Your task to perform on an android device: Show me popular videos on Youtube Image 0: 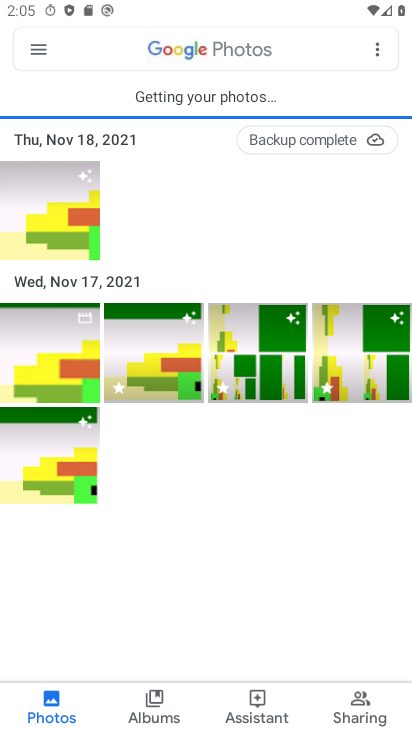
Step 0: press home button
Your task to perform on an android device: Show me popular videos on Youtube Image 1: 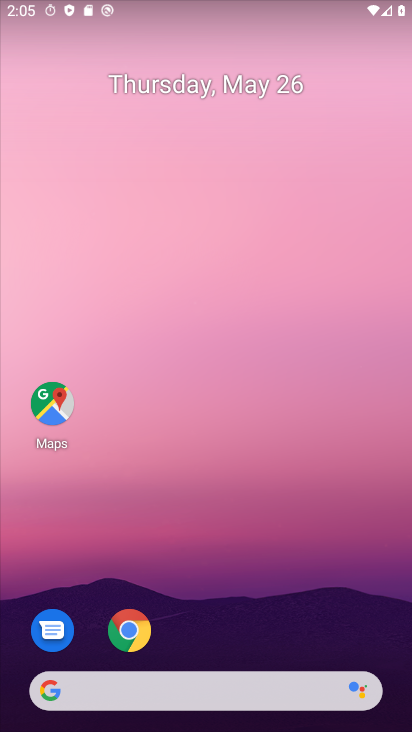
Step 1: drag from (290, 377) to (321, 94)
Your task to perform on an android device: Show me popular videos on Youtube Image 2: 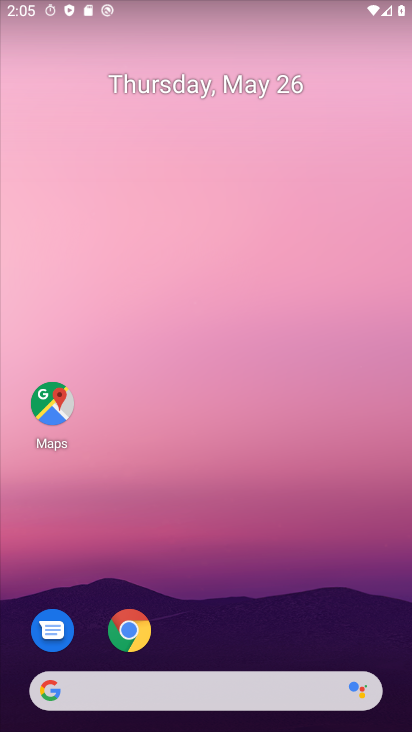
Step 2: drag from (194, 623) to (184, 43)
Your task to perform on an android device: Show me popular videos on Youtube Image 3: 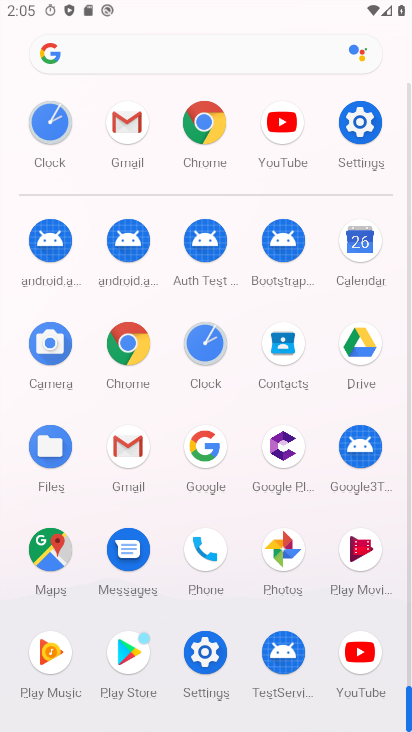
Step 3: click (262, 121)
Your task to perform on an android device: Show me popular videos on Youtube Image 4: 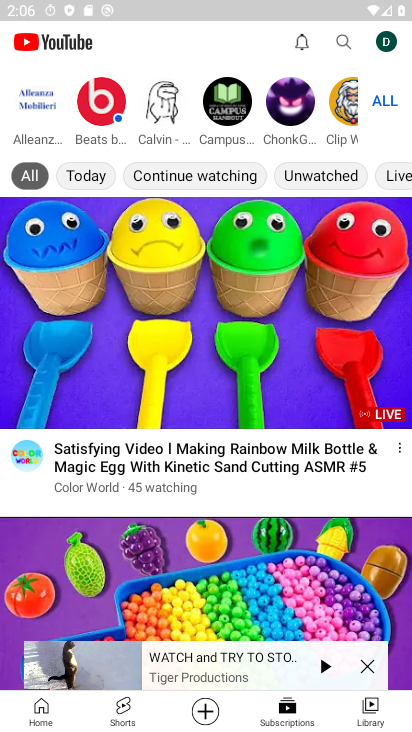
Step 4: click (335, 33)
Your task to perform on an android device: Show me popular videos on Youtube Image 5: 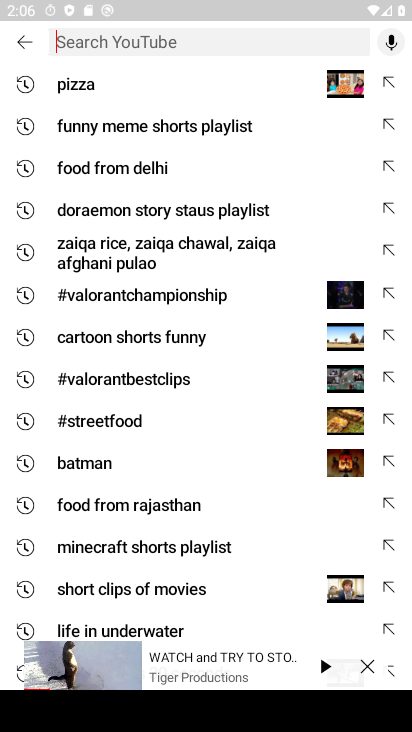
Step 5: type "popular videos"
Your task to perform on an android device: Show me popular videos on Youtube Image 6: 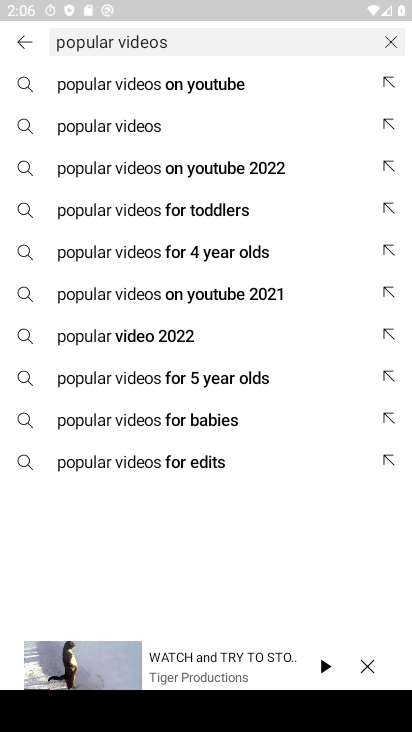
Step 6: click (169, 77)
Your task to perform on an android device: Show me popular videos on Youtube Image 7: 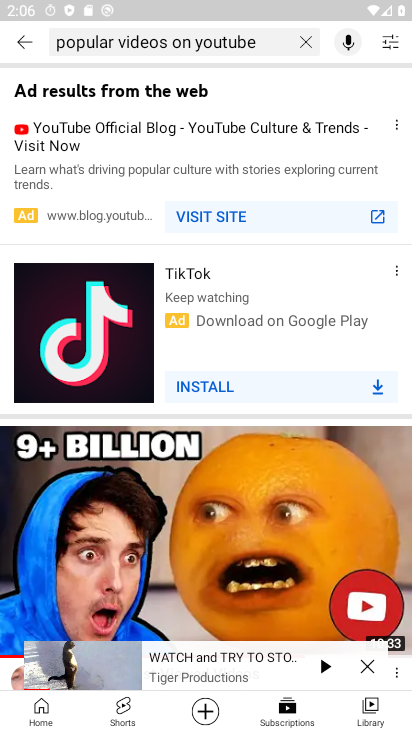
Step 7: click (307, 596)
Your task to perform on an android device: Show me popular videos on Youtube Image 8: 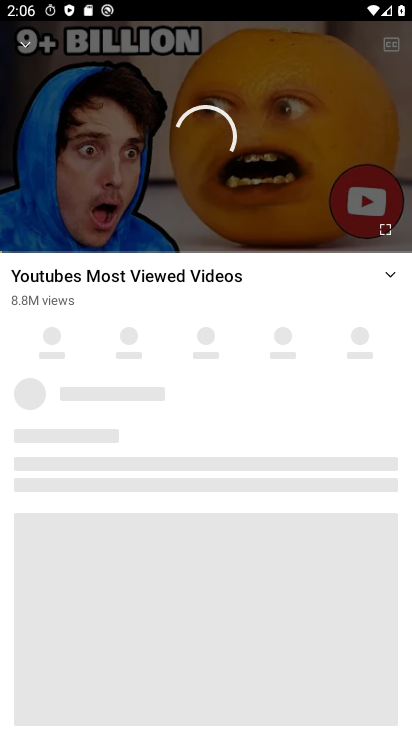
Step 8: click (307, 596)
Your task to perform on an android device: Show me popular videos on Youtube Image 9: 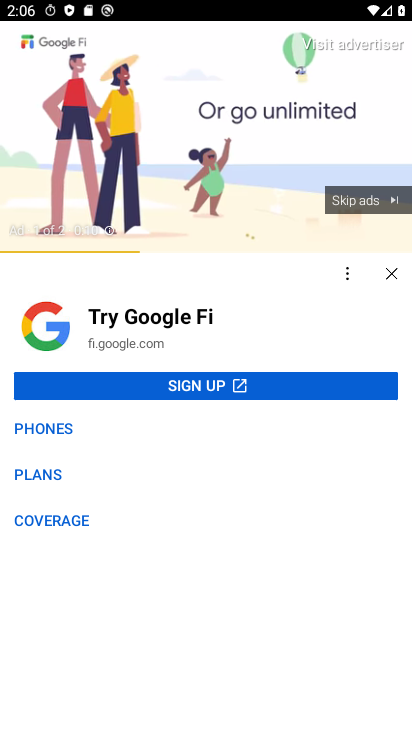
Step 9: click (366, 203)
Your task to perform on an android device: Show me popular videos on Youtube Image 10: 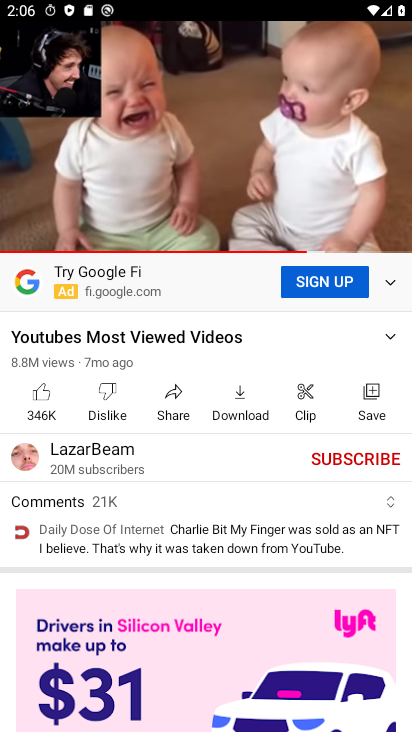
Step 10: task complete